Your task to perform on an android device: Open the stopwatch Image 0: 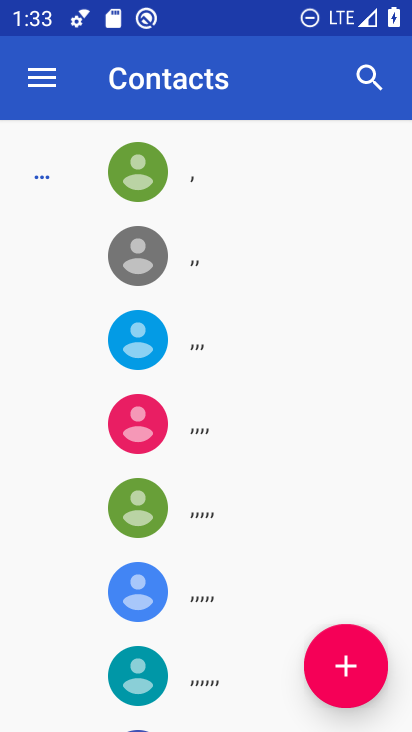
Step 0: press home button
Your task to perform on an android device: Open the stopwatch Image 1: 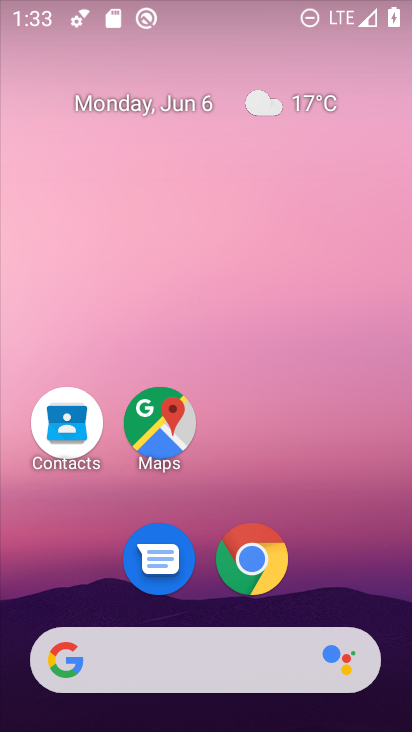
Step 1: drag from (203, 663) to (352, 496)
Your task to perform on an android device: Open the stopwatch Image 2: 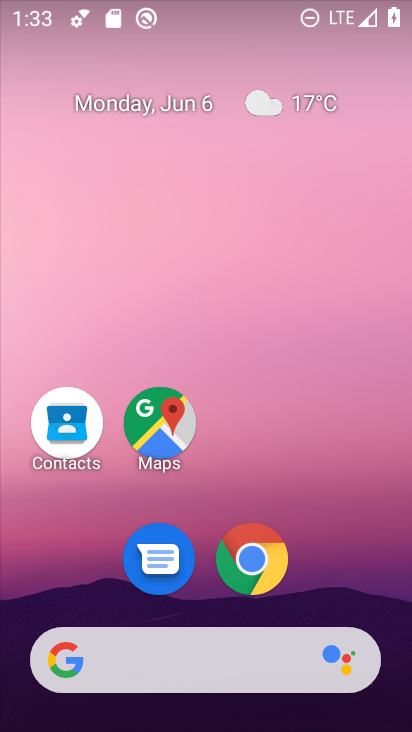
Step 2: drag from (232, 704) to (206, 457)
Your task to perform on an android device: Open the stopwatch Image 3: 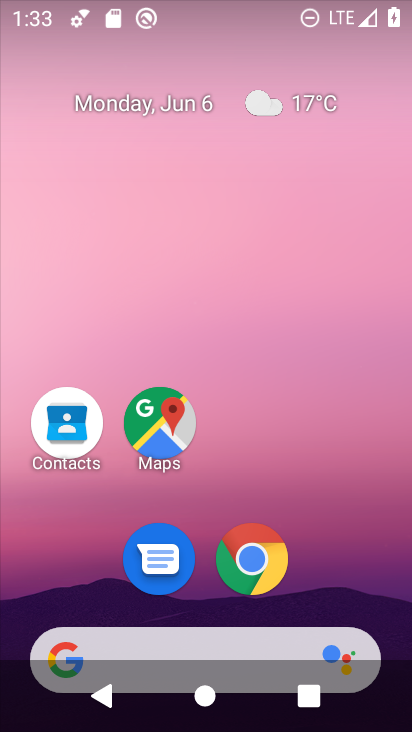
Step 3: click (377, 423)
Your task to perform on an android device: Open the stopwatch Image 4: 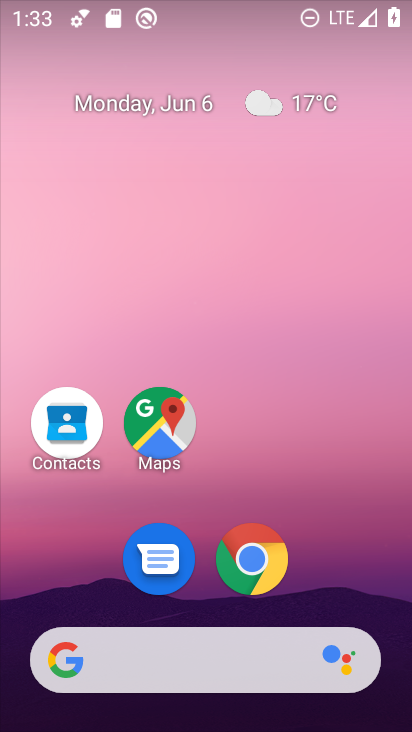
Step 4: click (318, 421)
Your task to perform on an android device: Open the stopwatch Image 5: 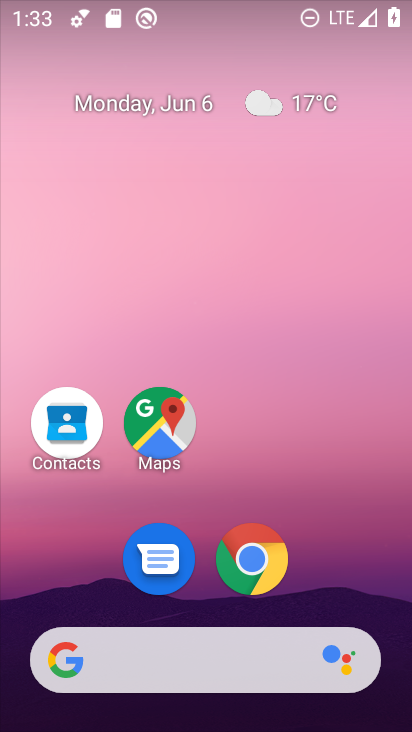
Step 5: click (249, 462)
Your task to perform on an android device: Open the stopwatch Image 6: 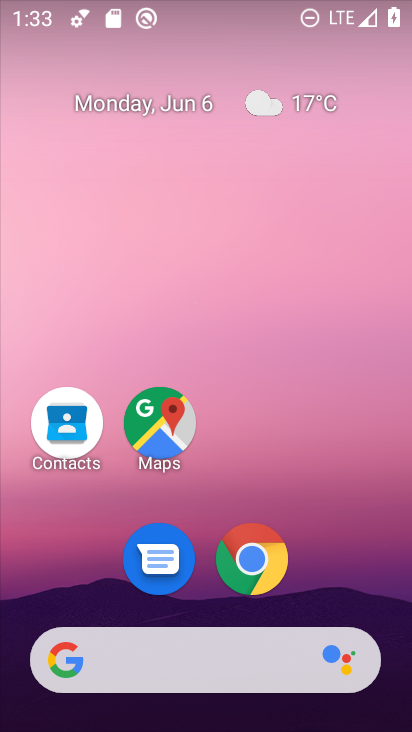
Step 6: drag from (176, 690) to (181, 293)
Your task to perform on an android device: Open the stopwatch Image 7: 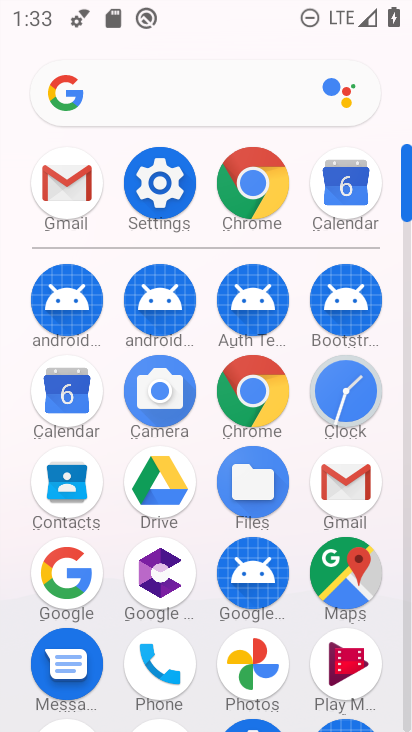
Step 7: click (350, 394)
Your task to perform on an android device: Open the stopwatch Image 8: 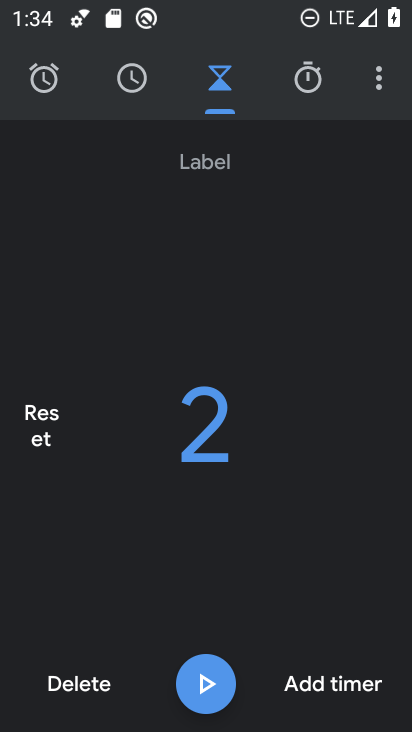
Step 8: click (294, 80)
Your task to perform on an android device: Open the stopwatch Image 9: 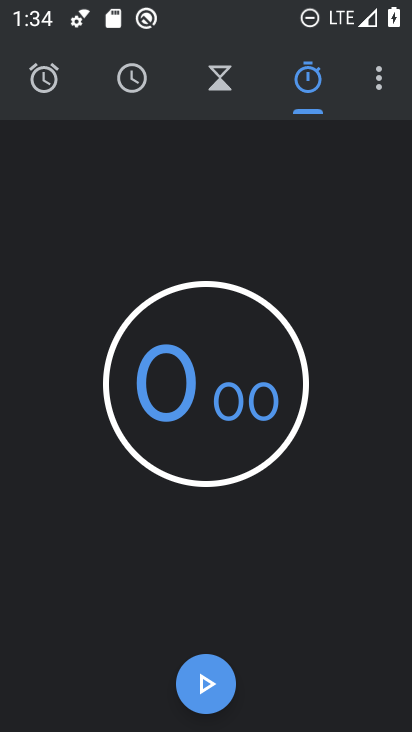
Step 9: task complete